Your task to perform on an android device: turn on location history Image 0: 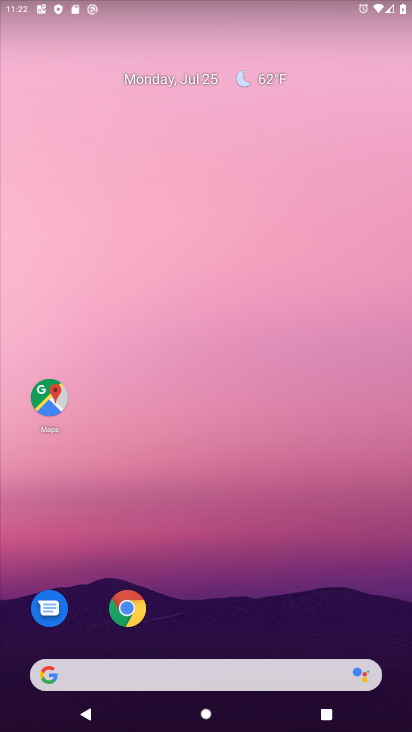
Step 0: drag from (222, 564) to (223, 231)
Your task to perform on an android device: turn on location history Image 1: 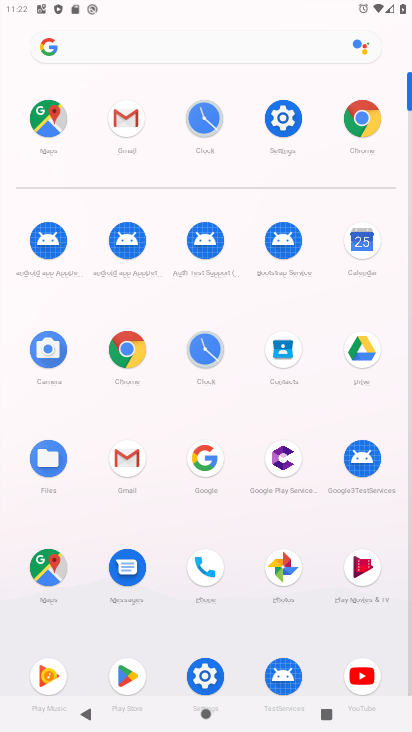
Step 1: click (213, 670)
Your task to perform on an android device: turn on location history Image 2: 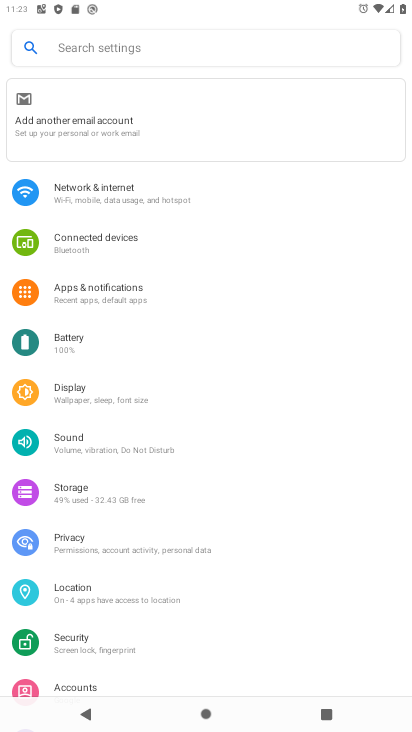
Step 2: click (101, 584)
Your task to perform on an android device: turn on location history Image 3: 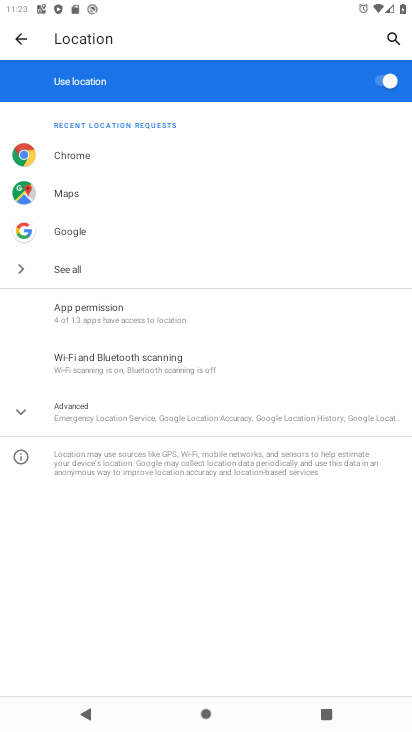
Step 3: click (105, 420)
Your task to perform on an android device: turn on location history Image 4: 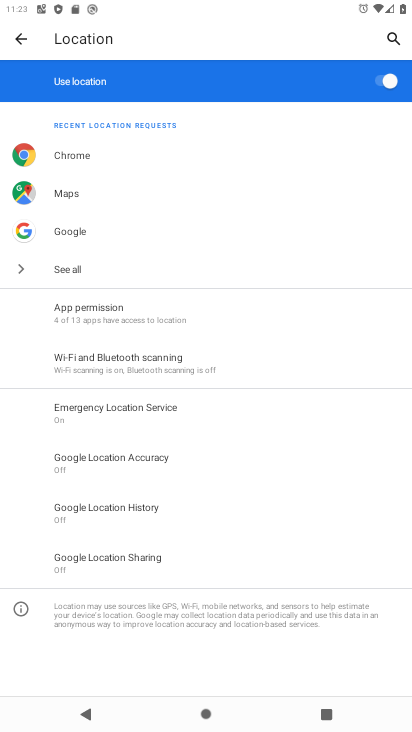
Step 4: click (113, 509)
Your task to perform on an android device: turn on location history Image 5: 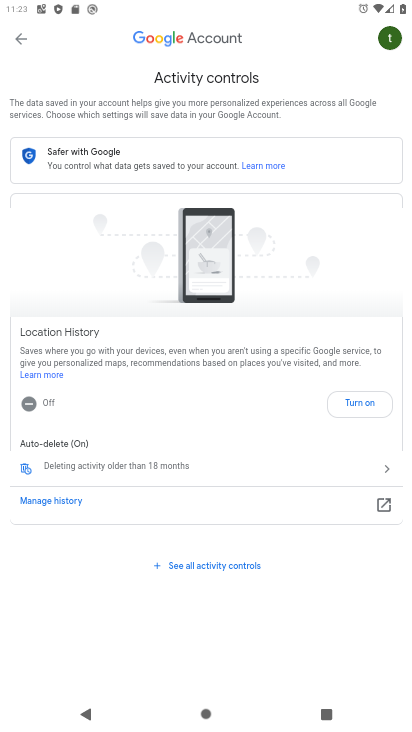
Step 5: click (344, 397)
Your task to perform on an android device: turn on location history Image 6: 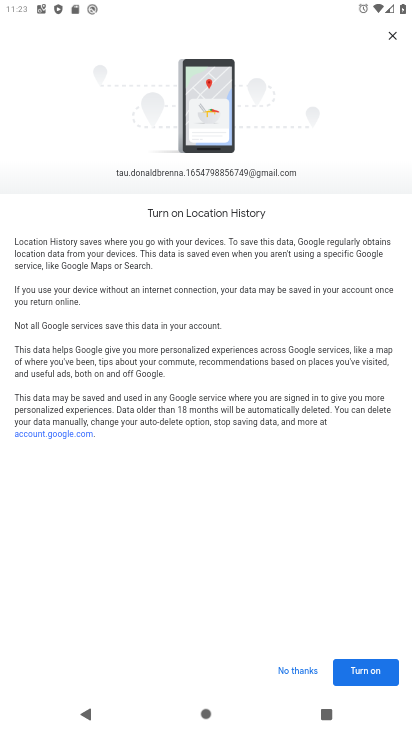
Step 6: click (369, 673)
Your task to perform on an android device: turn on location history Image 7: 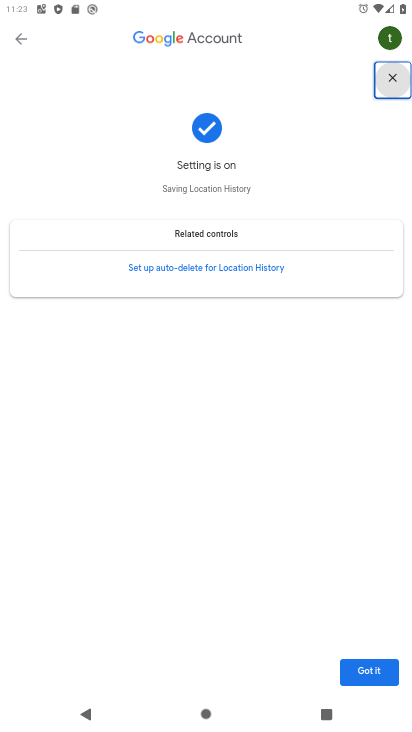
Step 7: click (356, 667)
Your task to perform on an android device: turn on location history Image 8: 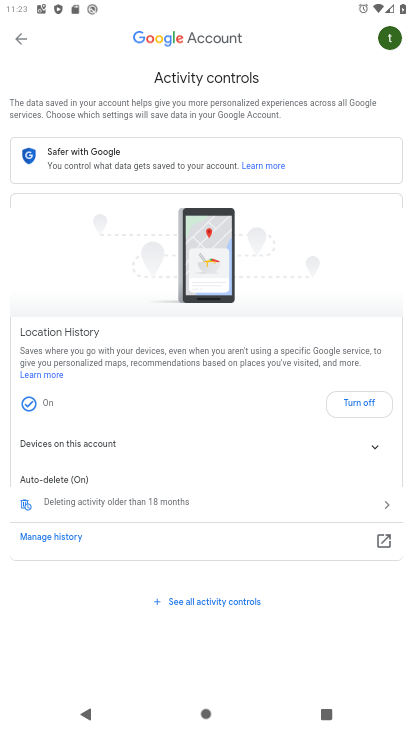
Step 8: task complete